Your task to perform on an android device: turn off sleep mode Image 0: 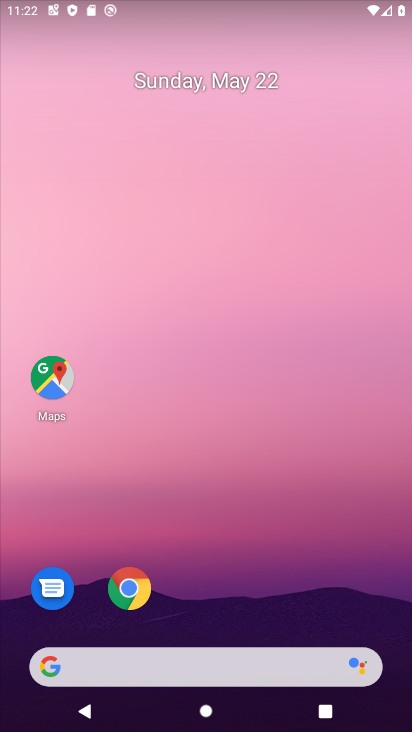
Step 0: drag from (246, 644) to (175, 159)
Your task to perform on an android device: turn off sleep mode Image 1: 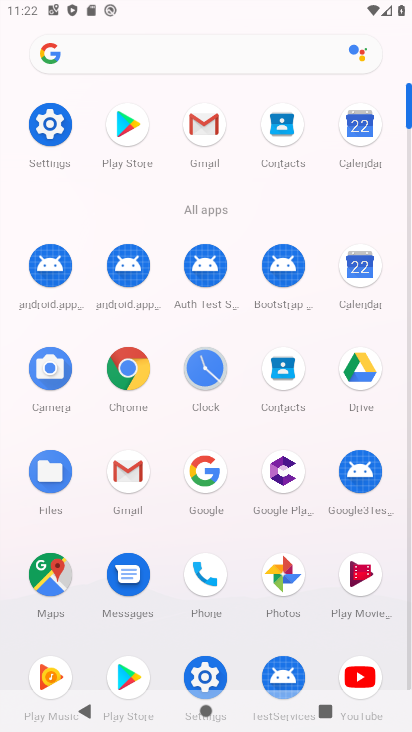
Step 1: click (48, 142)
Your task to perform on an android device: turn off sleep mode Image 2: 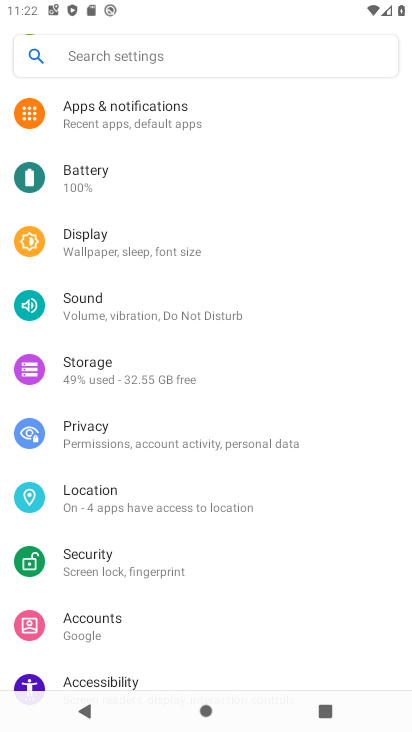
Step 2: click (162, 258)
Your task to perform on an android device: turn off sleep mode Image 3: 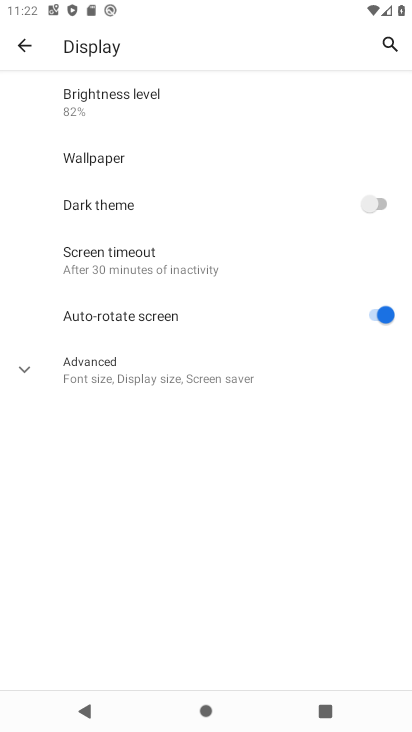
Step 3: click (121, 368)
Your task to perform on an android device: turn off sleep mode Image 4: 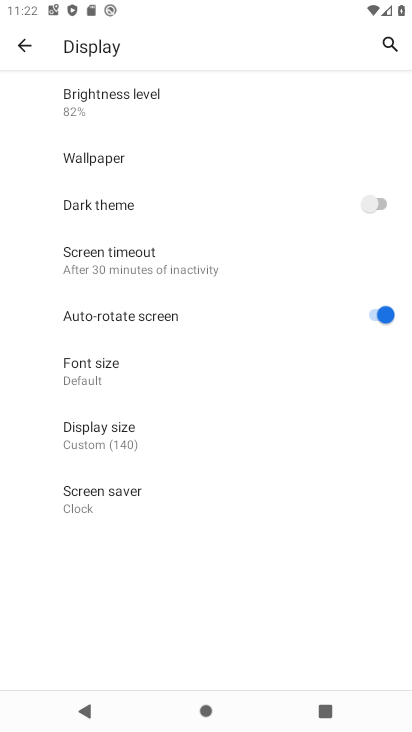
Step 4: click (133, 252)
Your task to perform on an android device: turn off sleep mode Image 5: 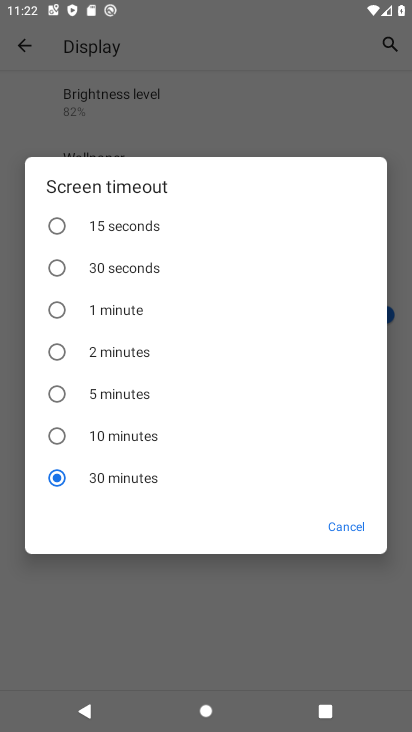
Step 5: click (136, 231)
Your task to perform on an android device: turn off sleep mode Image 6: 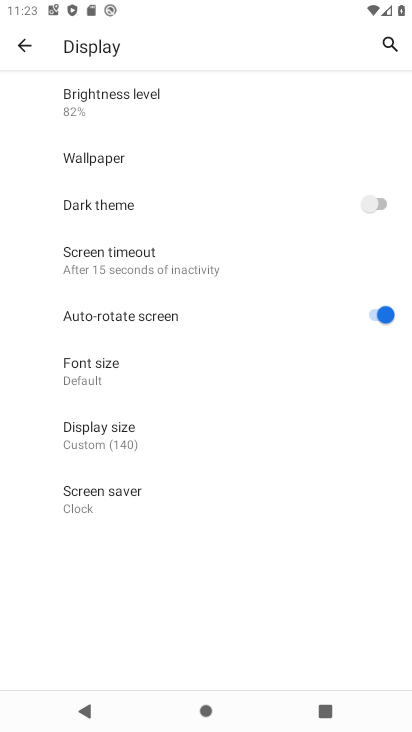
Step 6: click (136, 267)
Your task to perform on an android device: turn off sleep mode Image 7: 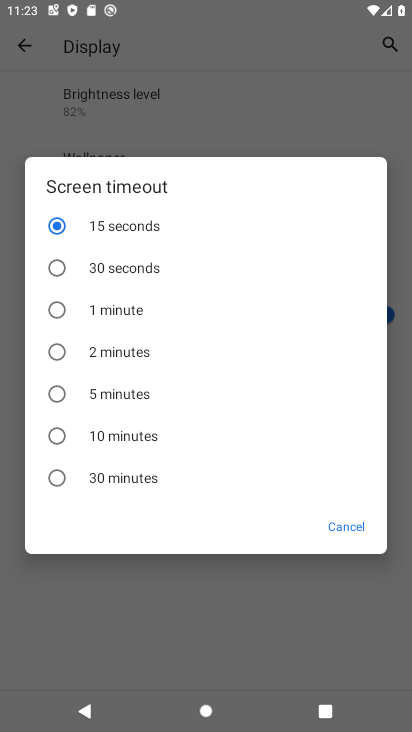
Step 7: task complete